Your task to perform on an android device: open a bookmark in the chrome app Image 0: 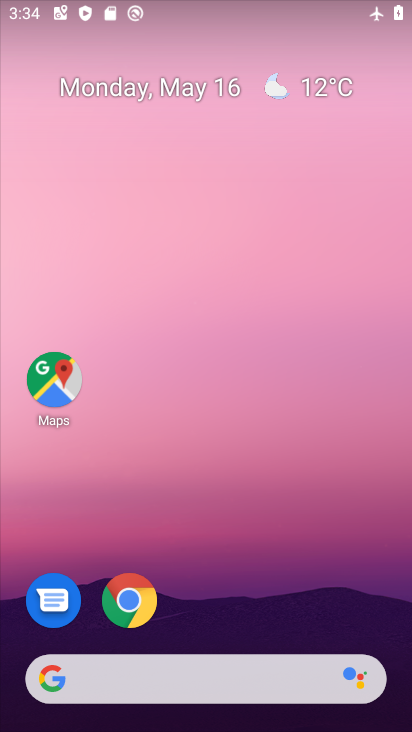
Step 0: drag from (217, 650) to (356, 99)
Your task to perform on an android device: open a bookmark in the chrome app Image 1: 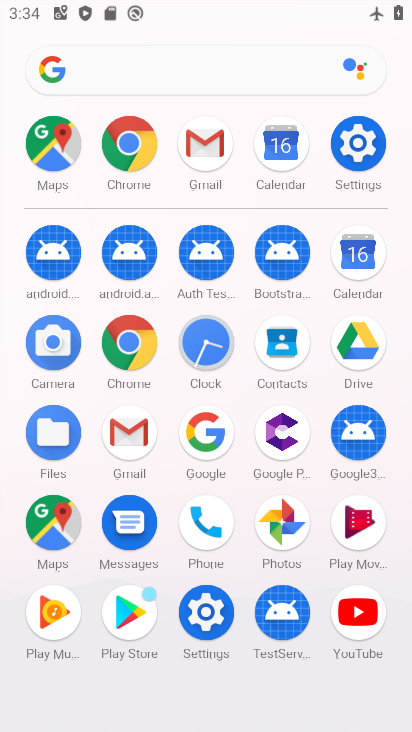
Step 1: click (136, 333)
Your task to perform on an android device: open a bookmark in the chrome app Image 2: 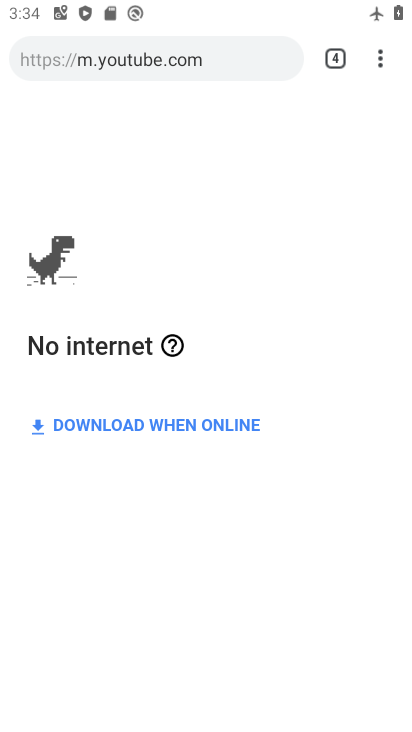
Step 2: click (379, 60)
Your task to perform on an android device: open a bookmark in the chrome app Image 3: 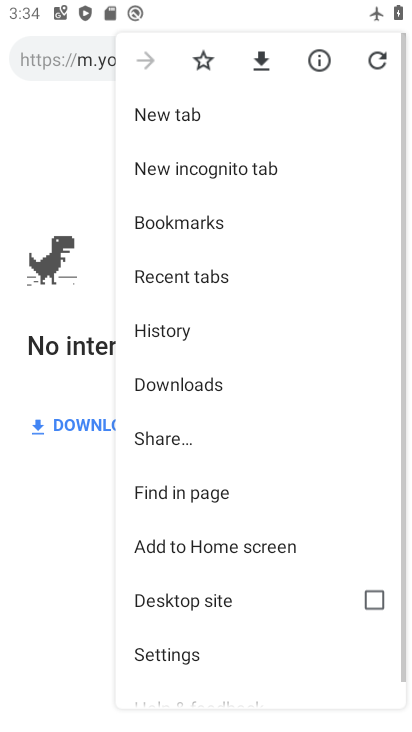
Step 3: click (167, 225)
Your task to perform on an android device: open a bookmark in the chrome app Image 4: 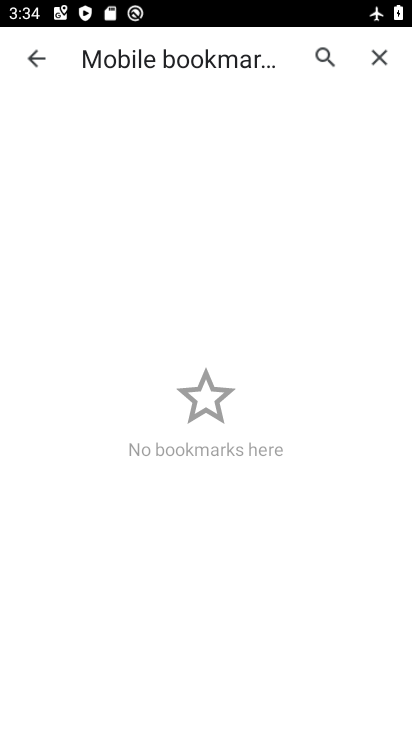
Step 4: task complete